Your task to perform on an android device: open app "Google Maps" (install if not already installed) Image 0: 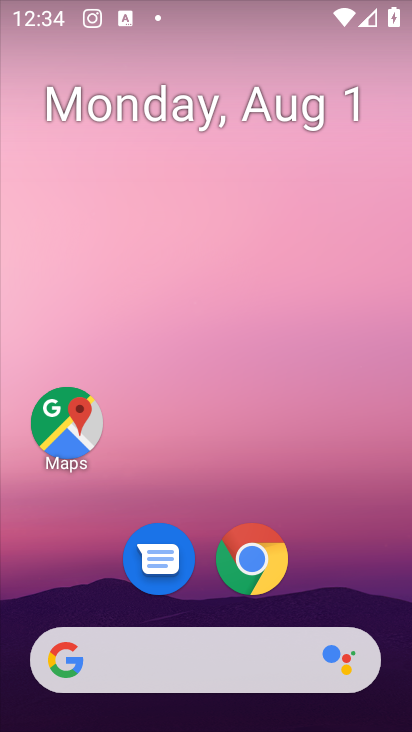
Step 0: click (78, 424)
Your task to perform on an android device: open app "Google Maps" (install if not already installed) Image 1: 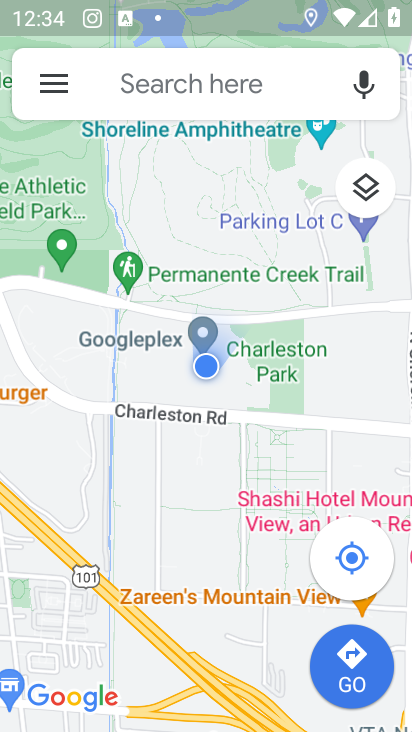
Step 1: task complete